Your task to perform on an android device: open app "LinkedIn" (install if not already installed) Image 0: 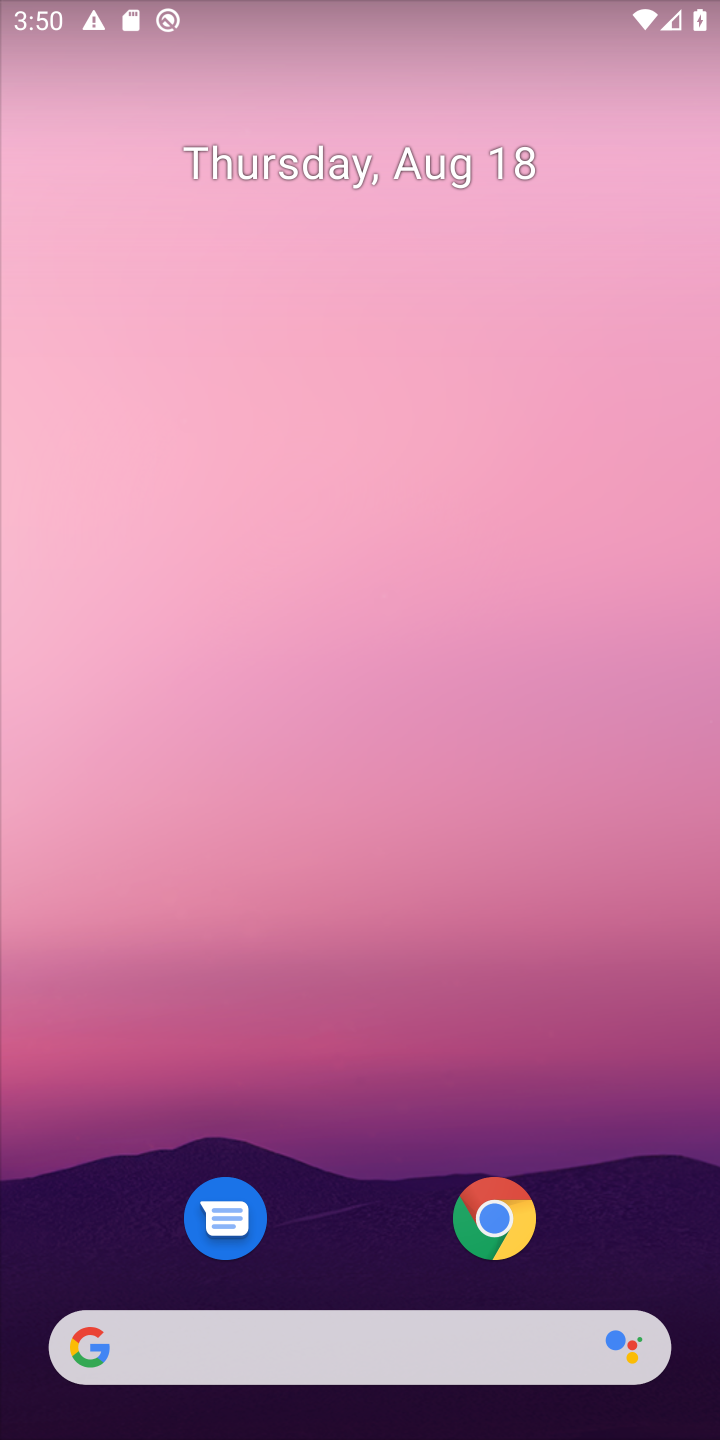
Step 0: drag from (380, 1124) to (320, 336)
Your task to perform on an android device: open app "LinkedIn" (install if not already installed) Image 1: 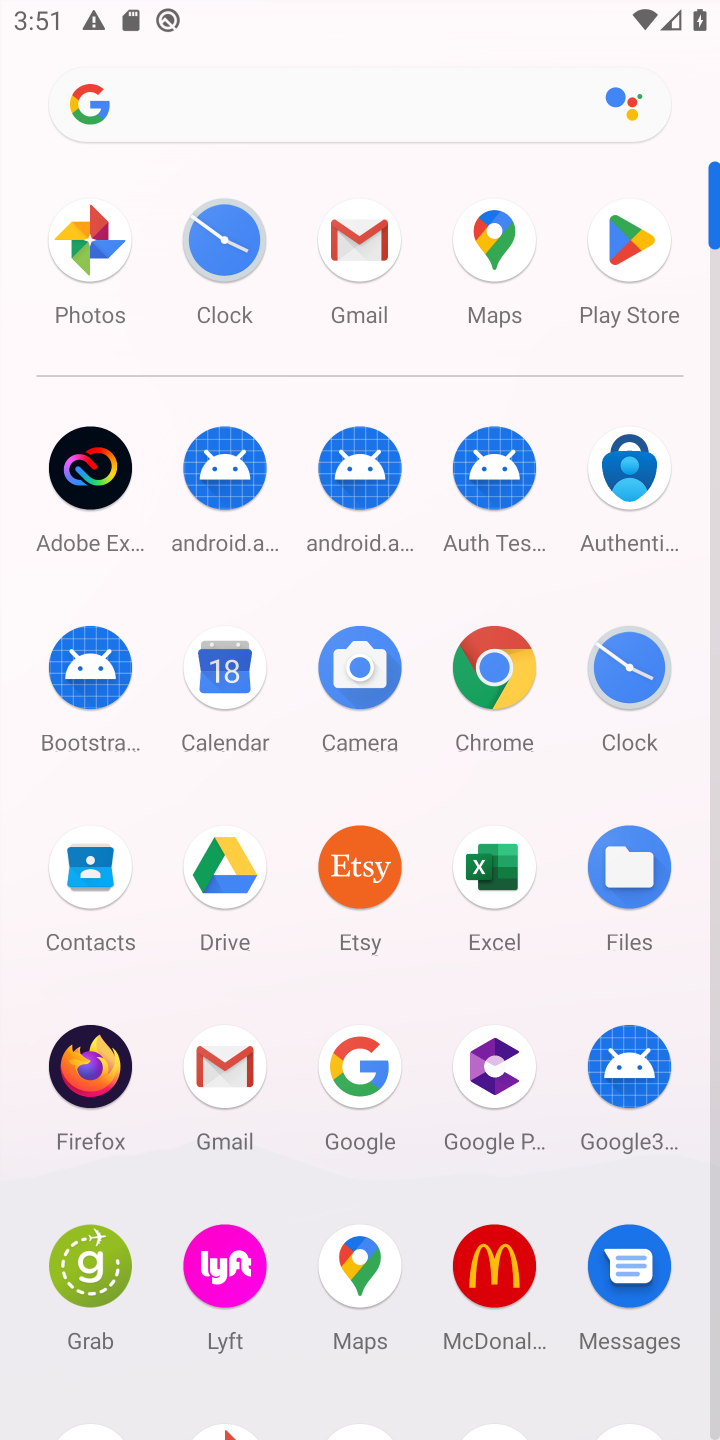
Step 1: click (598, 252)
Your task to perform on an android device: open app "LinkedIn" (install if not already installed) Image 2: 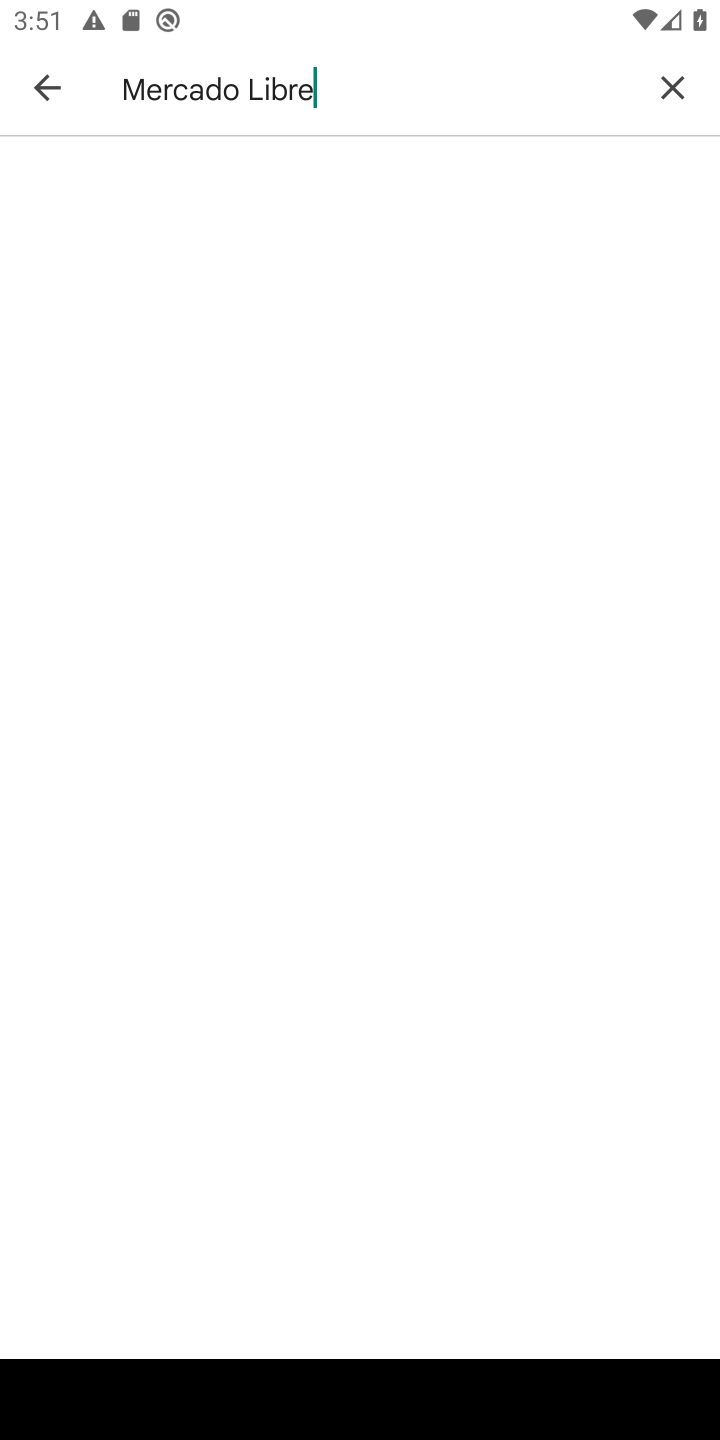
Step 2: click (661, 78)
Your task to perform on an android device: open app "LinkedIn" (install if not already installed) Image 3: 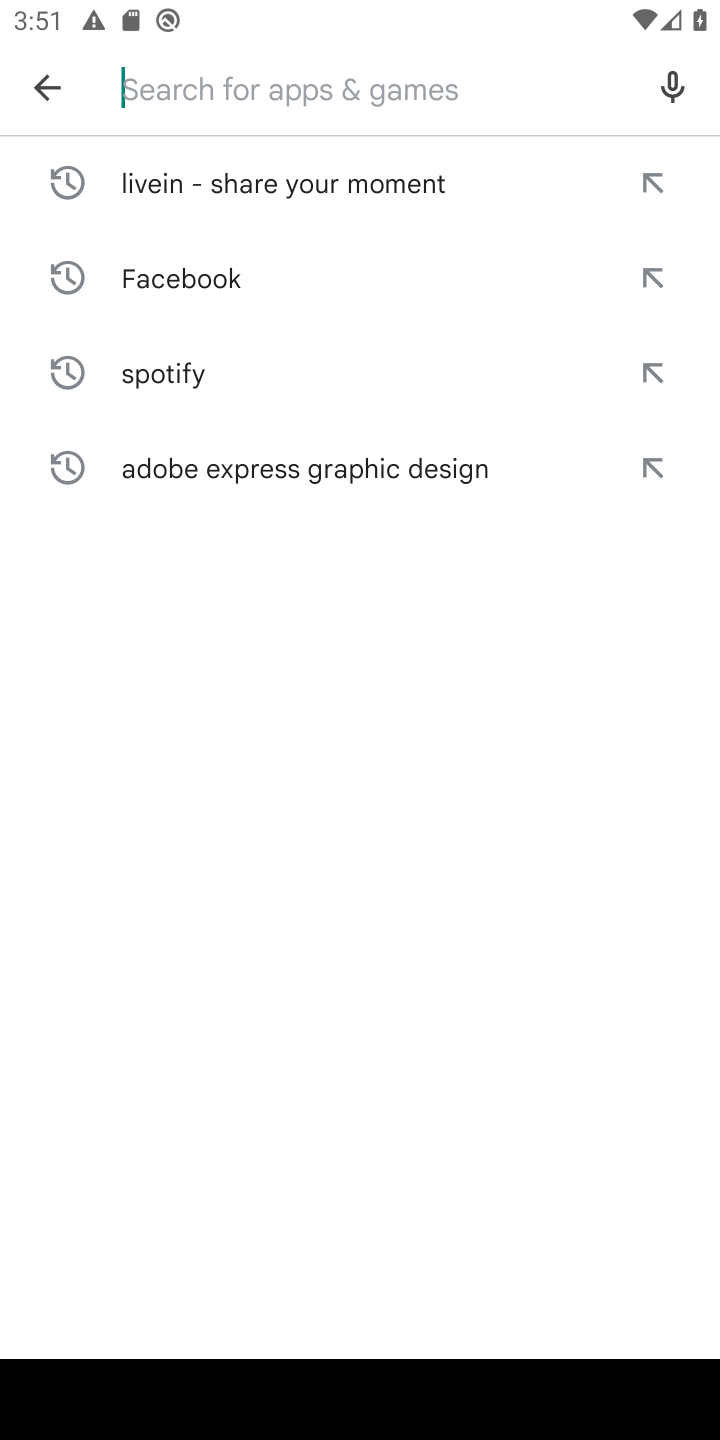
Step 3: type "LinkedIn"
Your task to perform on an android device: open app "LinkedIn" (install if not already installed) Image 4: 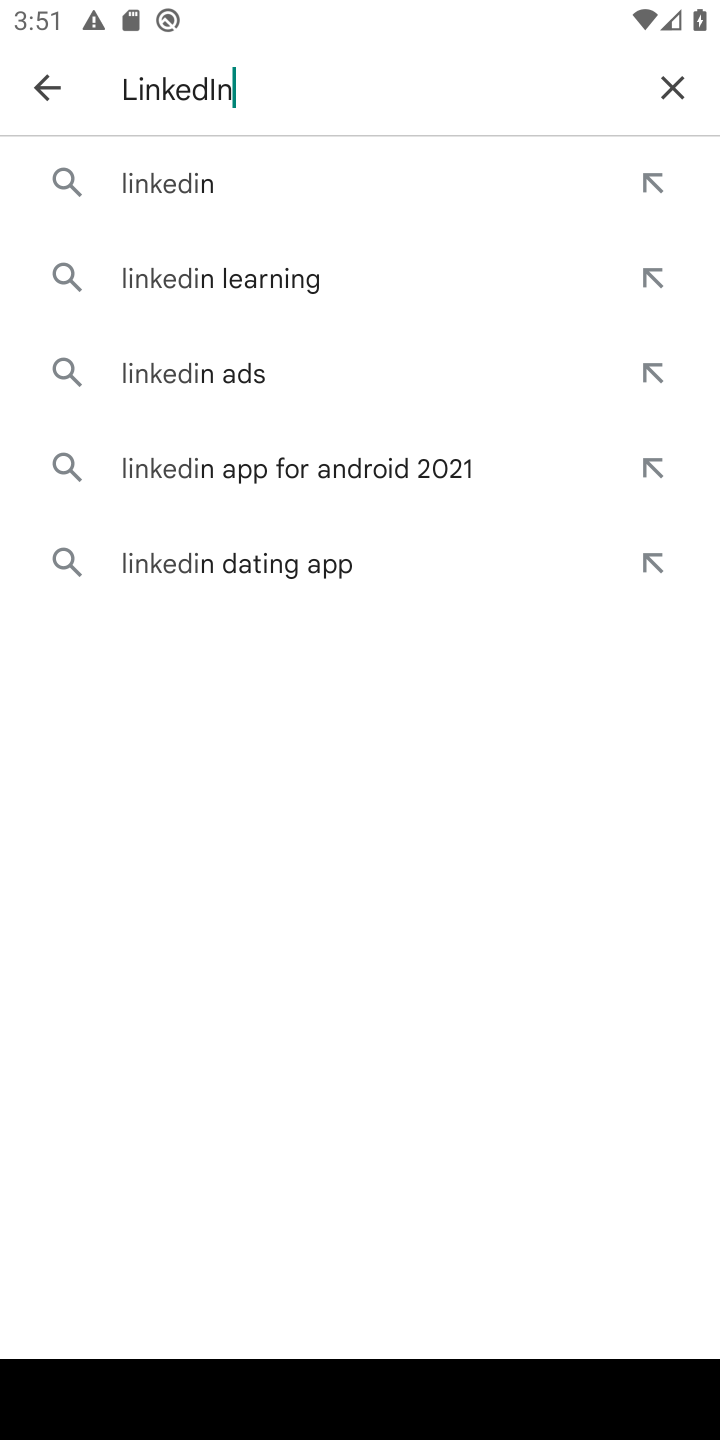
Step 4: type ""
Your task to perform on an android device: open app "LinkedIn" (install if not already installed) Image 5: 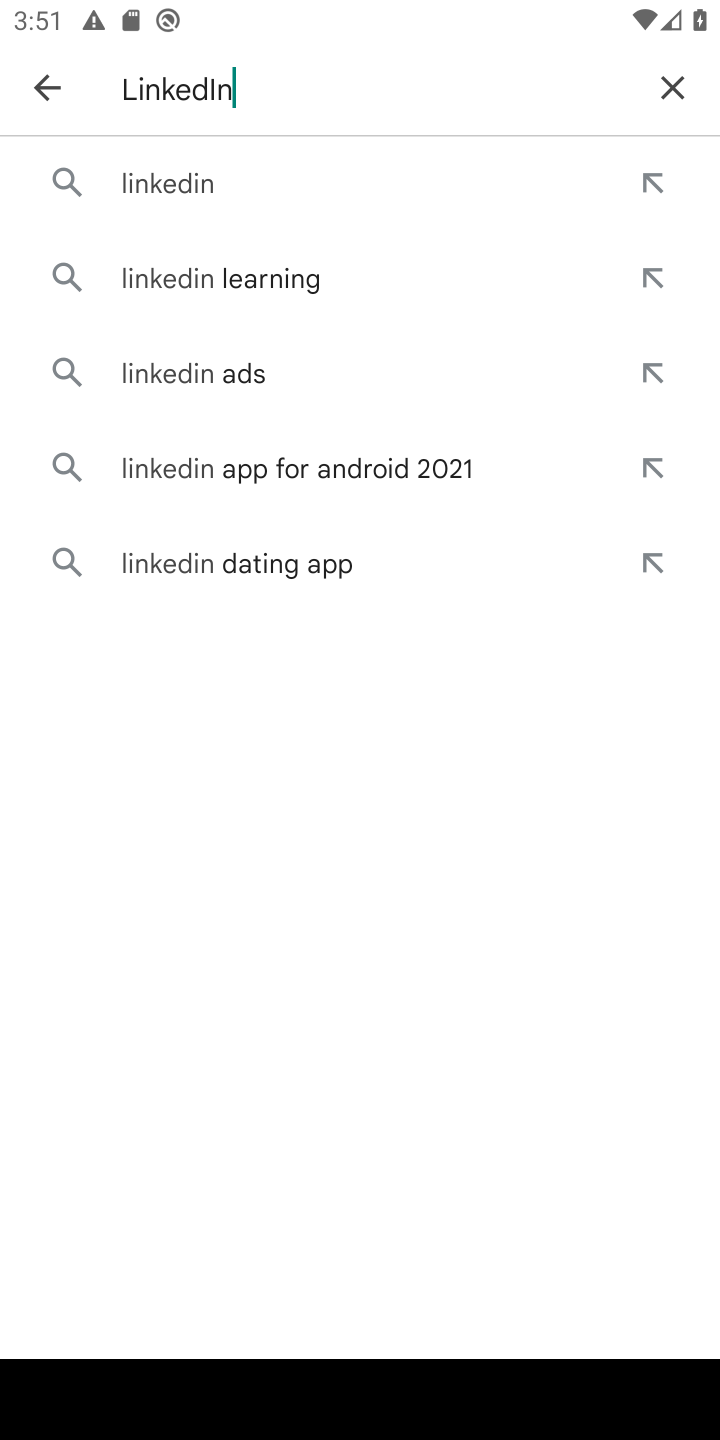
Step 5: click (193, 180)
Your task to perform on an android device: open app "LinkedIn" (install if not already installed) Image 6: 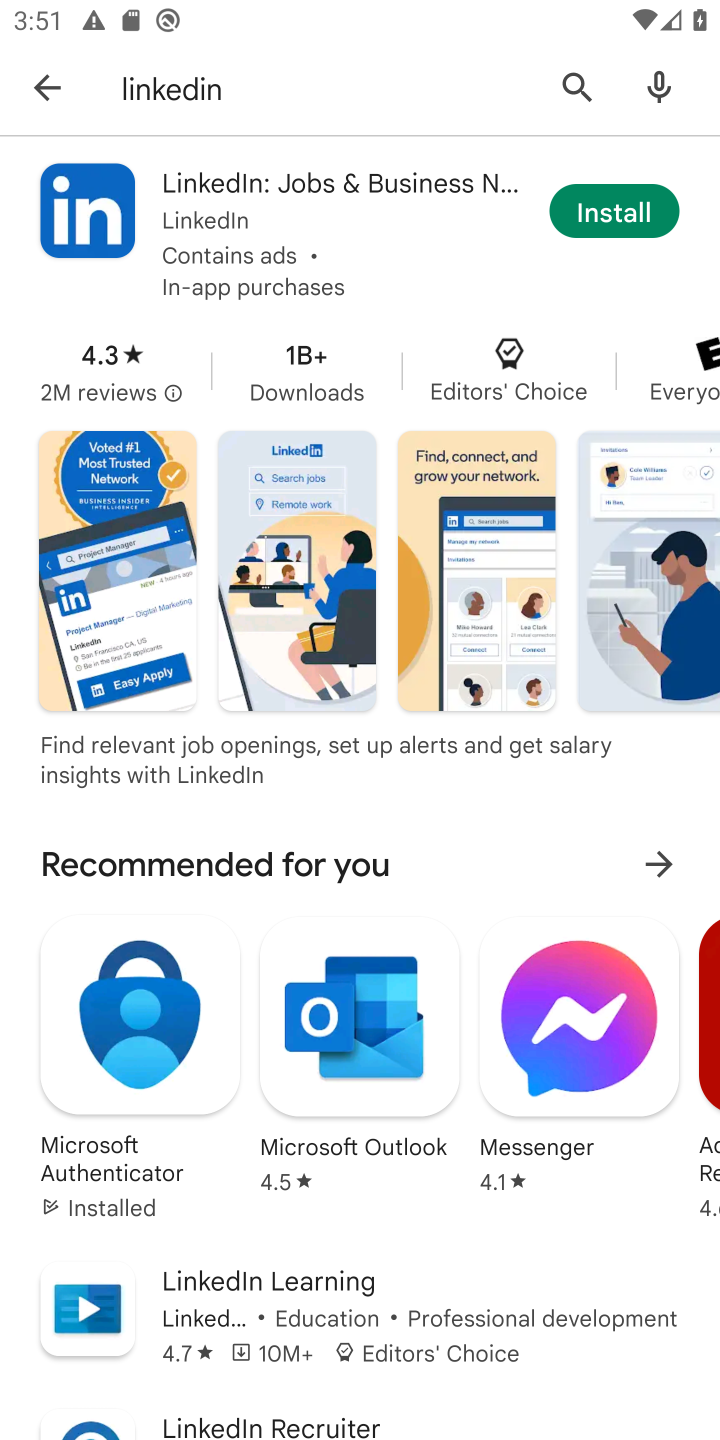
Step 6: click (570, 217)
Your task to perform on an android device: open app "LinkedIn" (install if not already installed) Image 7: 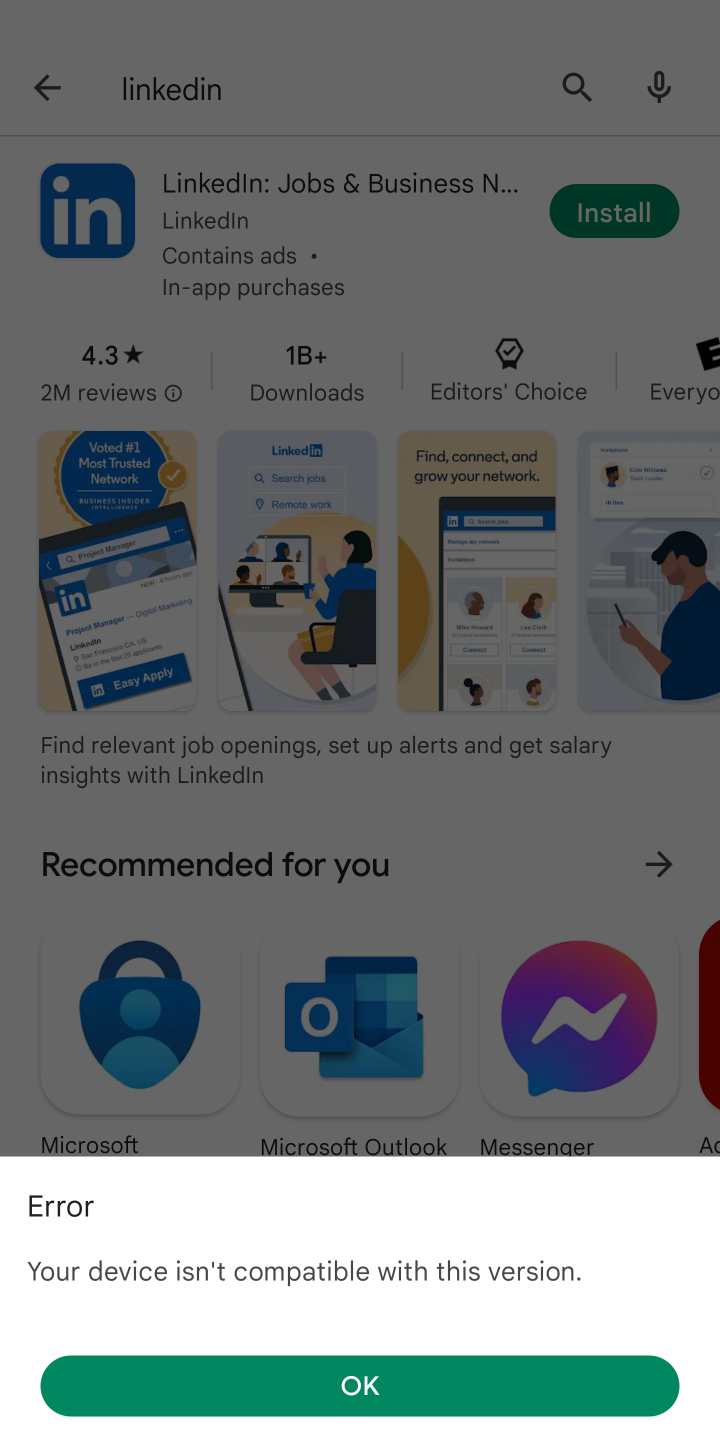
Step 7: task complete